Your task to perform on an android device: Open settings on Google Maps Image 0: 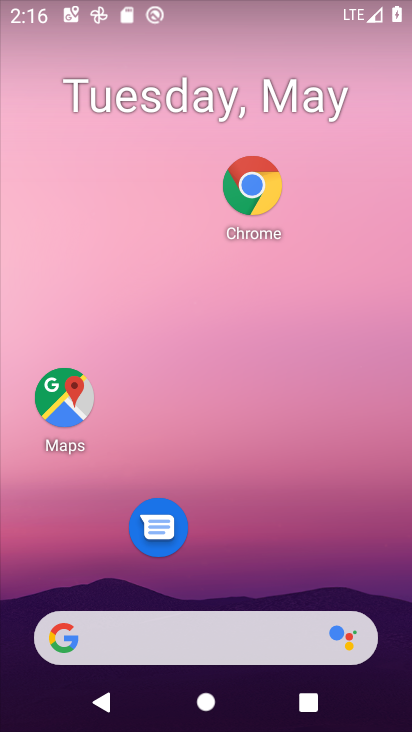
Step 0: drag from (283, 567) to (115, 56)
Your task to perform on an android device: Open settings on Google Maps Image 1: 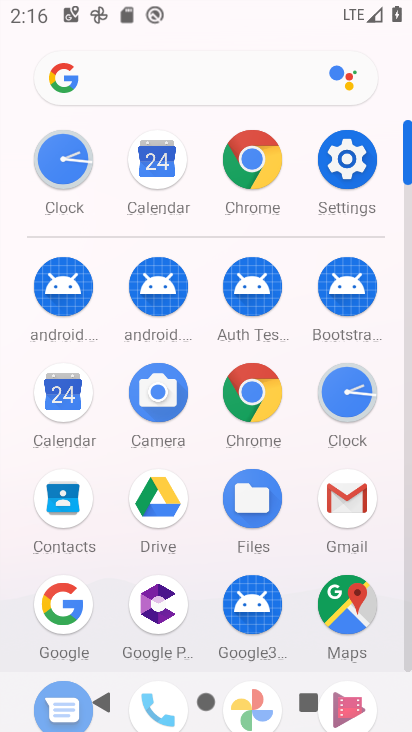
Step 1: click (338, 603)
Your task to perform on an android device: Open settings on Google Maps Image 2: 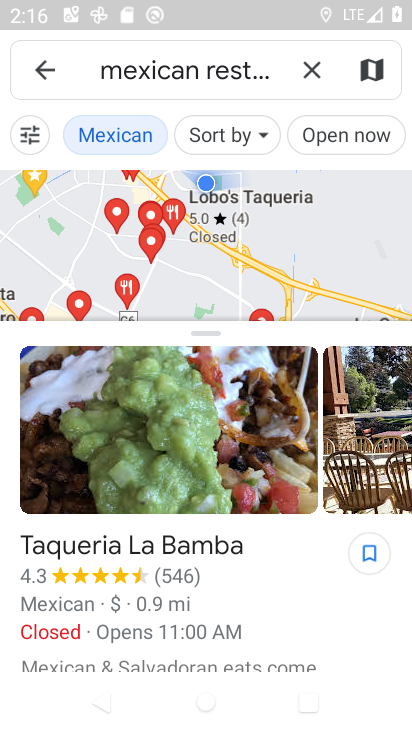
Step 2: click (54, 66)
Your task to perform on an android device: Open settings on Google Maps Image 3: 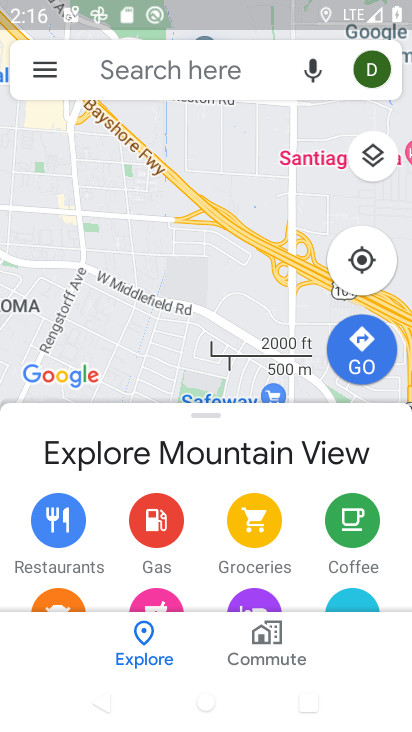
Step 3: click (48, 76)
Your task to perform on an android device: Open settings on Google Maps Image 4: 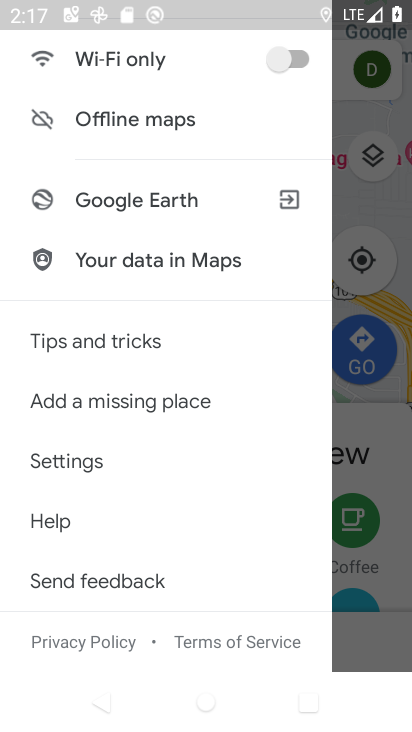
Step 4: click (58, 457)
Your task to perform on an android device: Open settings on Google Maps Image 5: 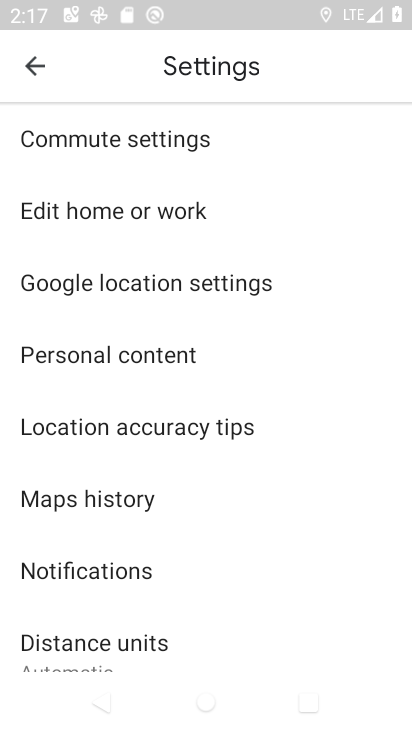
Step 5: task complete